Your task to perform on an android device: uninstall "Reddit" Image 0: 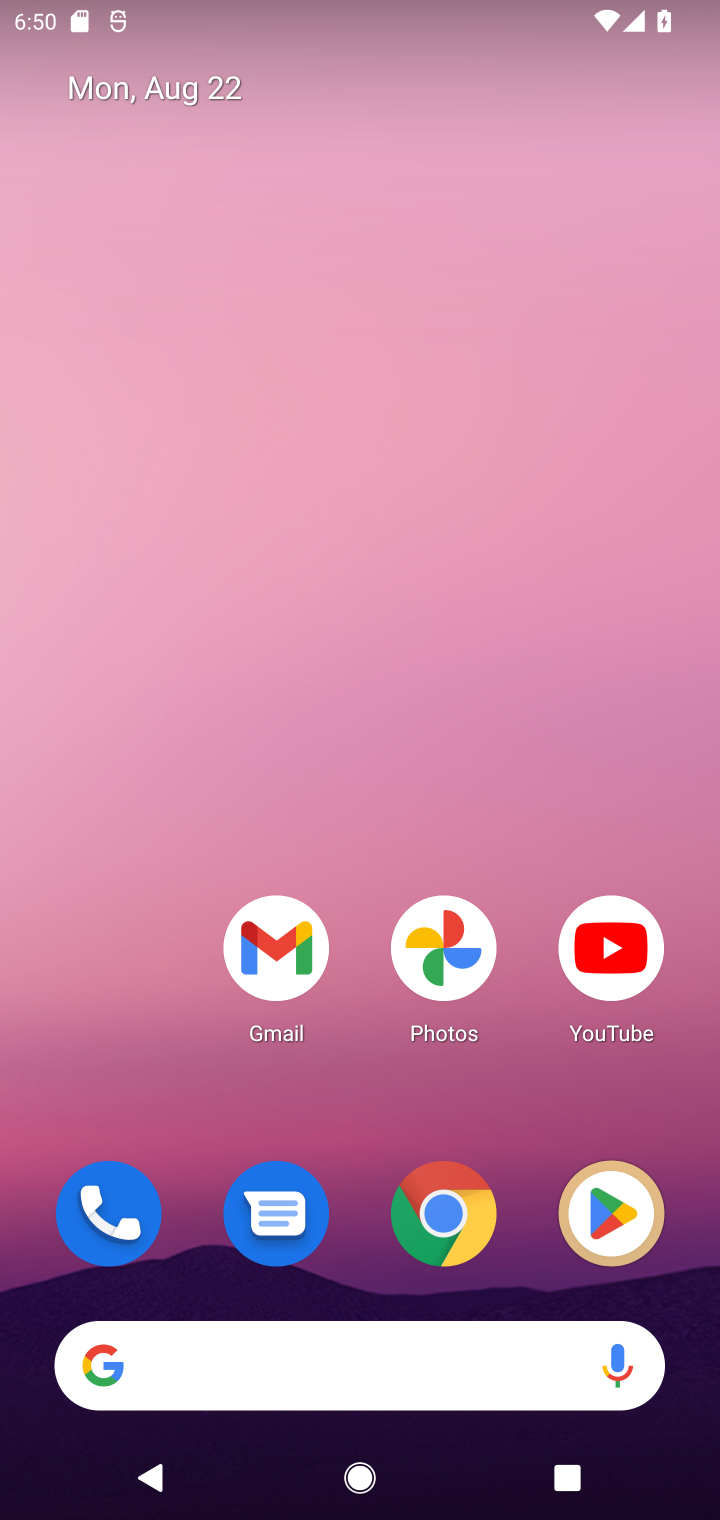
Step 0: press home button
Your task to perform on an android device: uninstall "Reddit" Image 1: 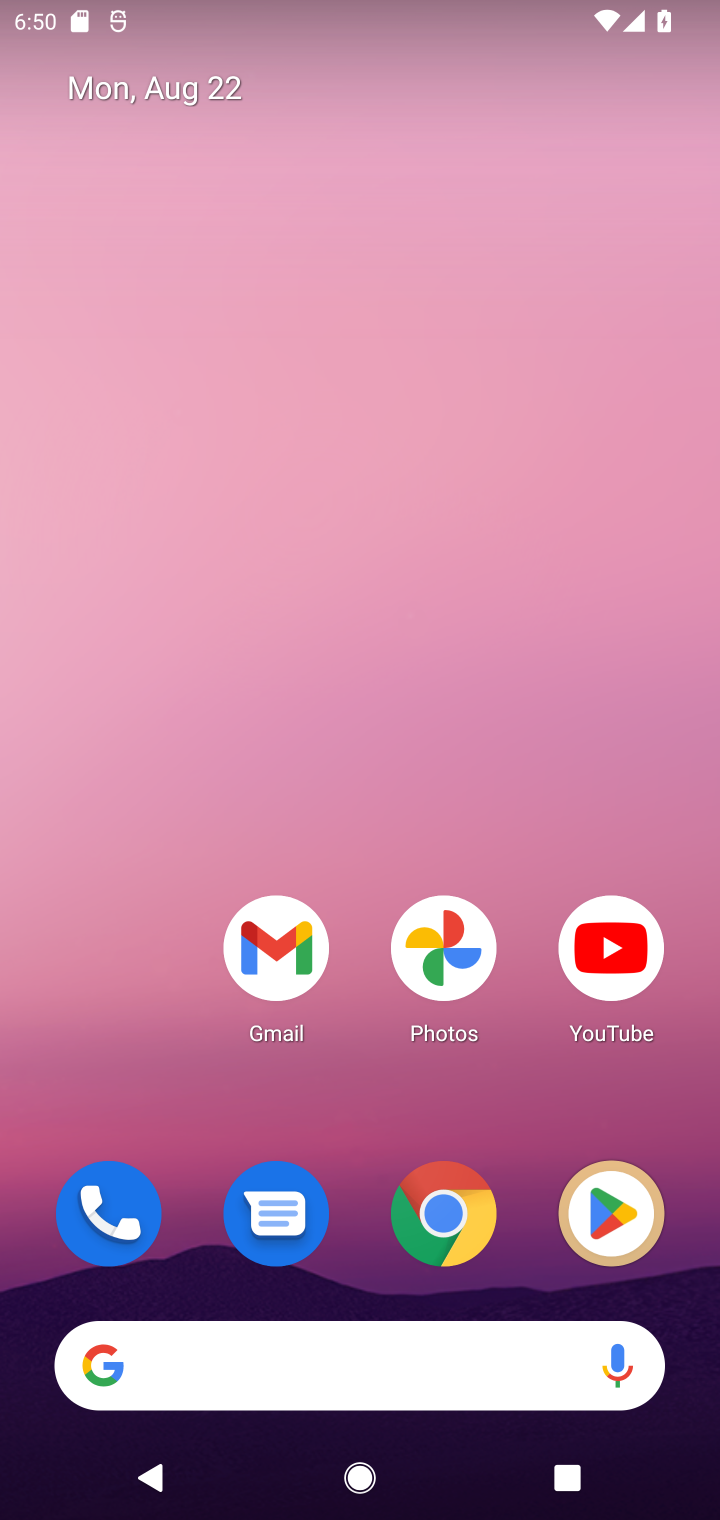
Step 1: click (624, 1195)
Your task to perform on an android device: uninstall "Reddit" Image 2: 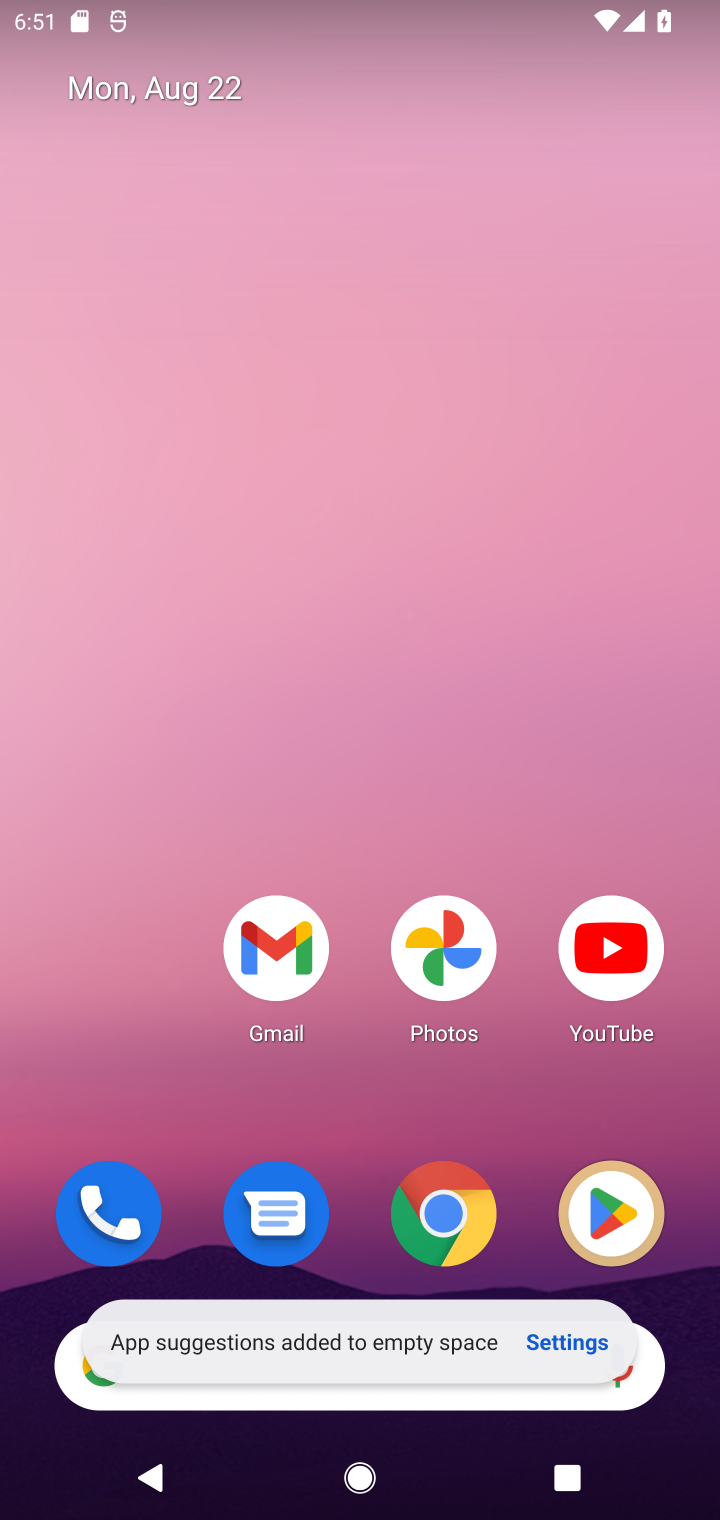
Step 2: click (617, 1200)
Your task to perform on an android device: uninstall "Reddit" Image 3: 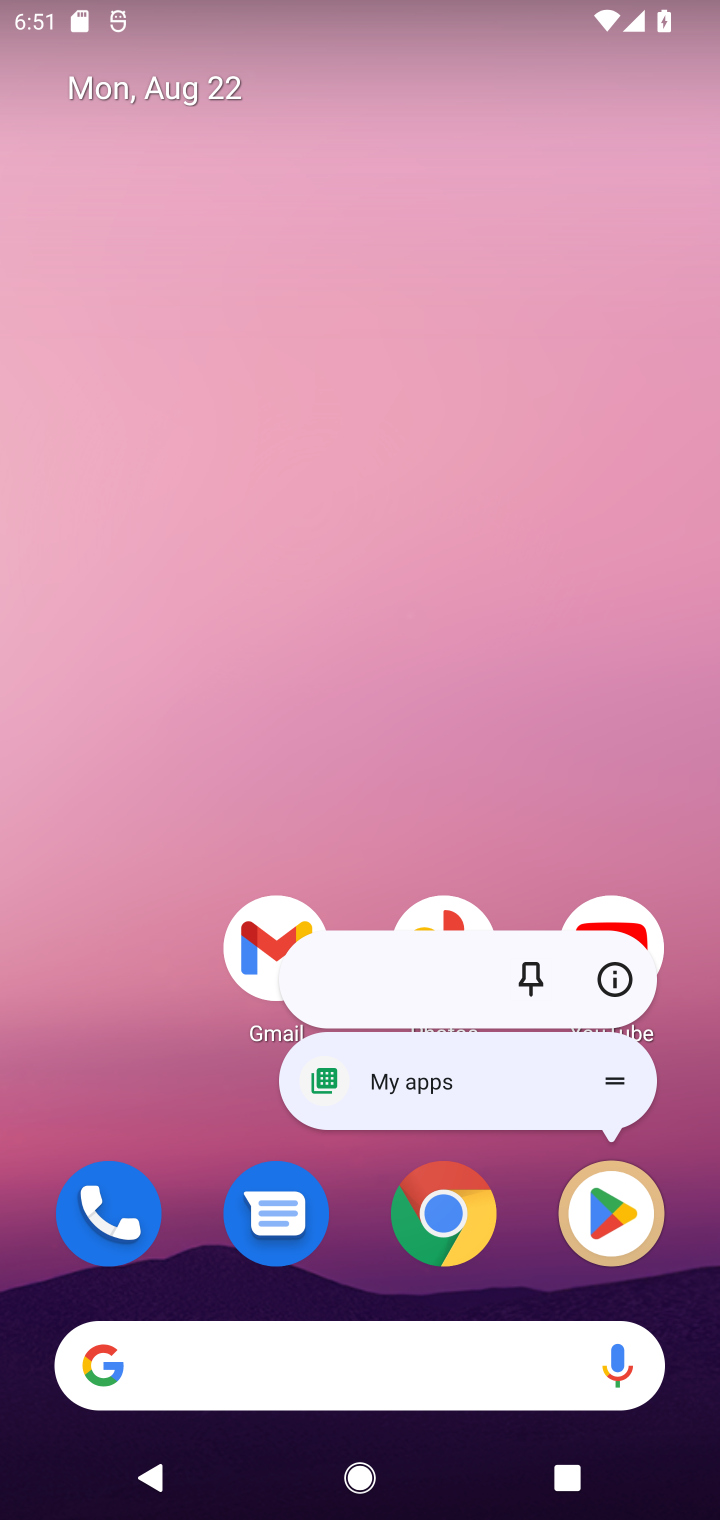
Step 3: click (617, 1200)
Your task to perform on an android device: uninstall "Reddit" Image 4: 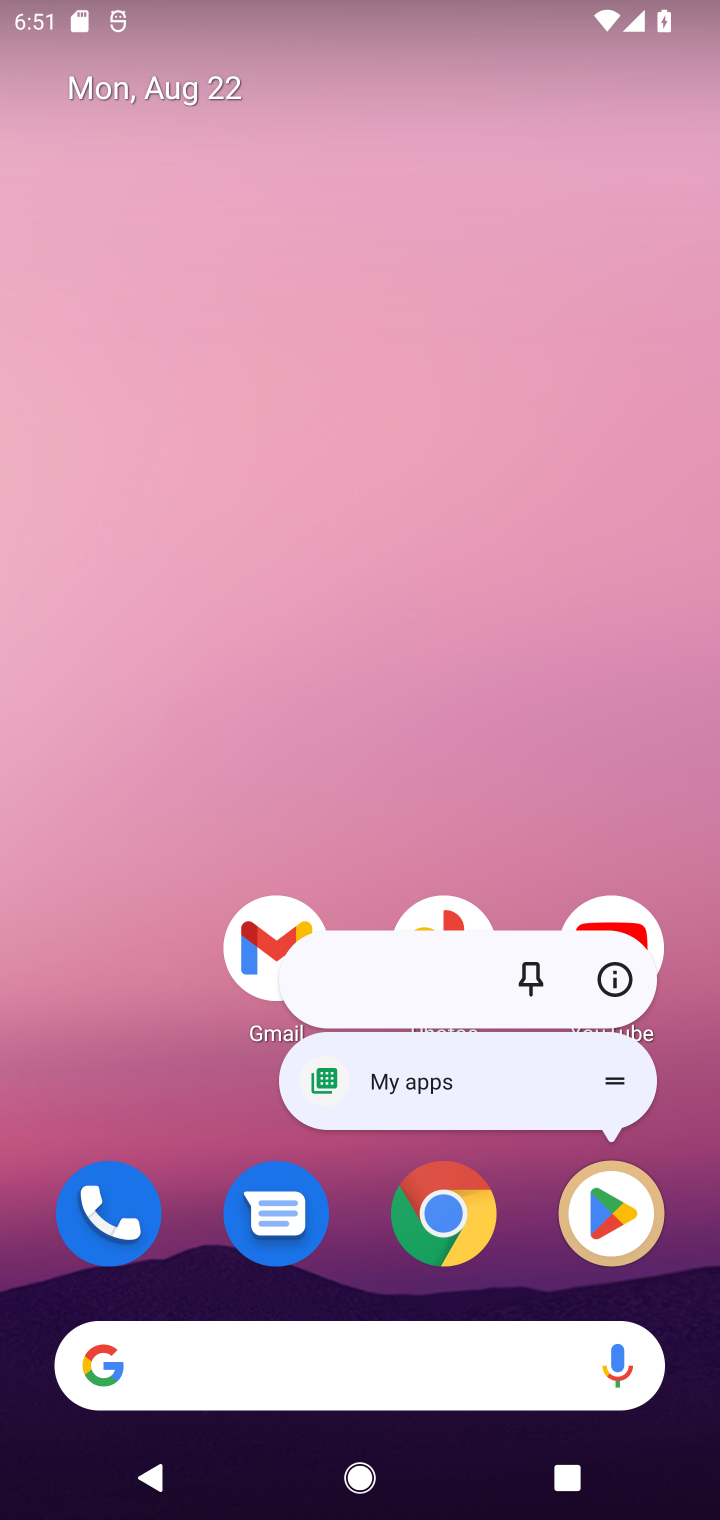
Step 4: click (612, 1197)
Your task to perform on an android device: uninstall "Reddit" Image 5: 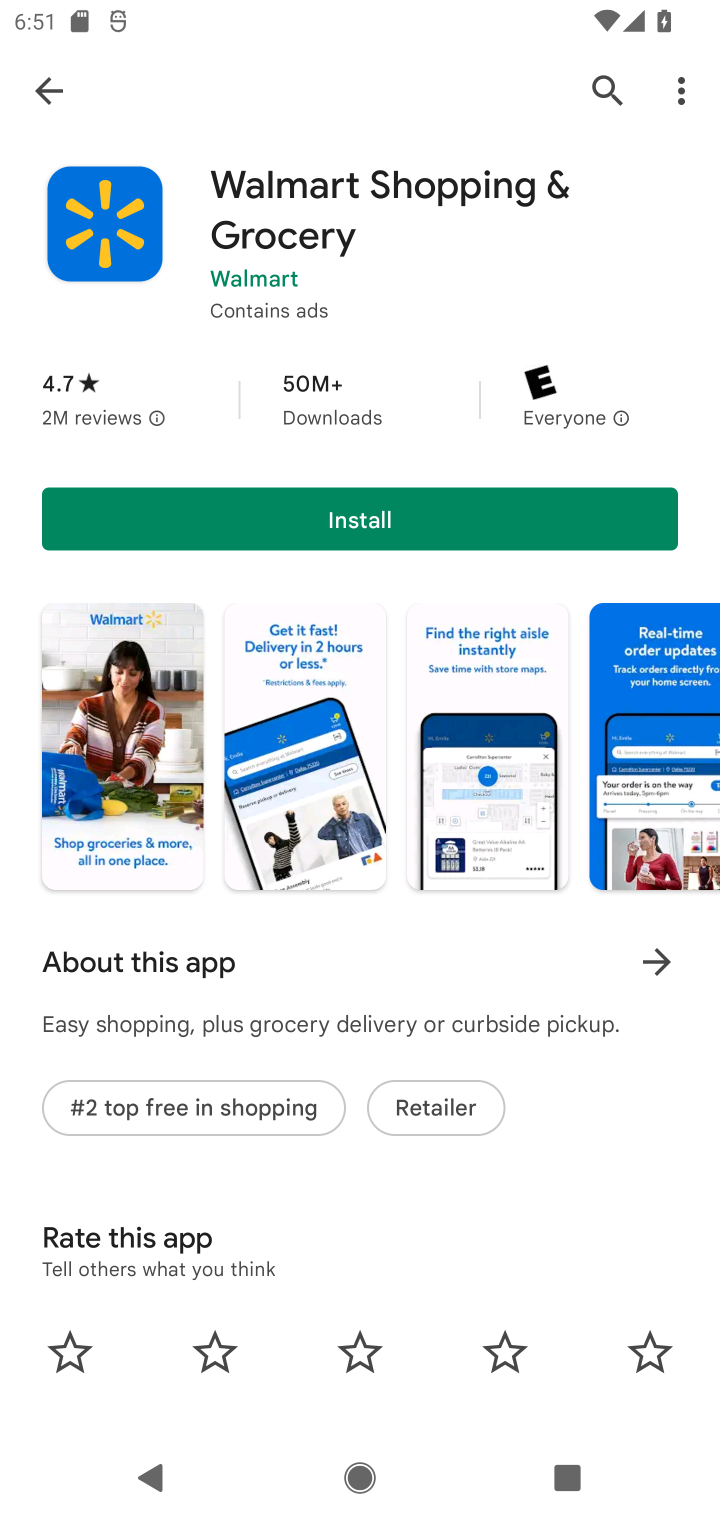
Step 5: click (615, 86)
Your task to perform on an android device: uninstall "Reddit" Image 6: 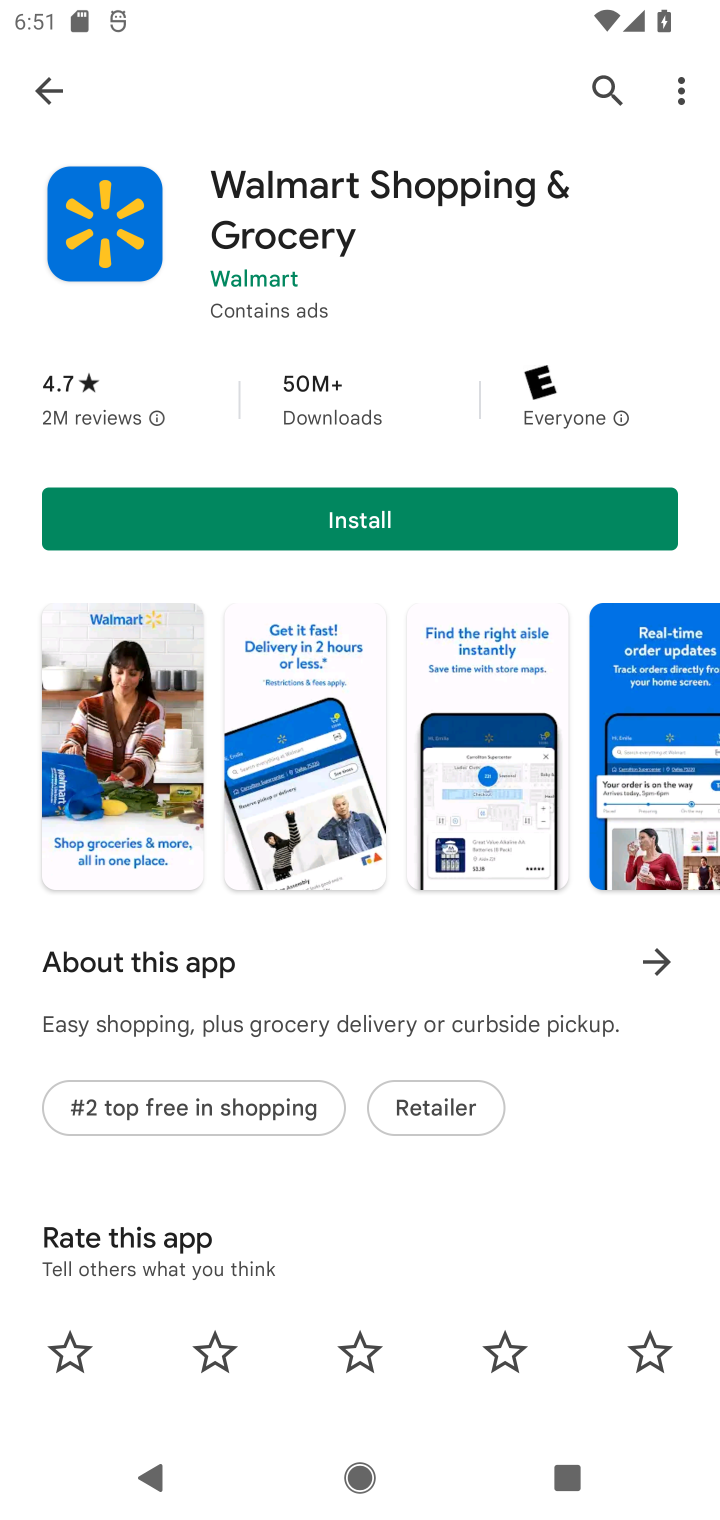
Step 6: click (603, 97)
Your task to perform on an android device: uninstall "Reddit" Image 7: 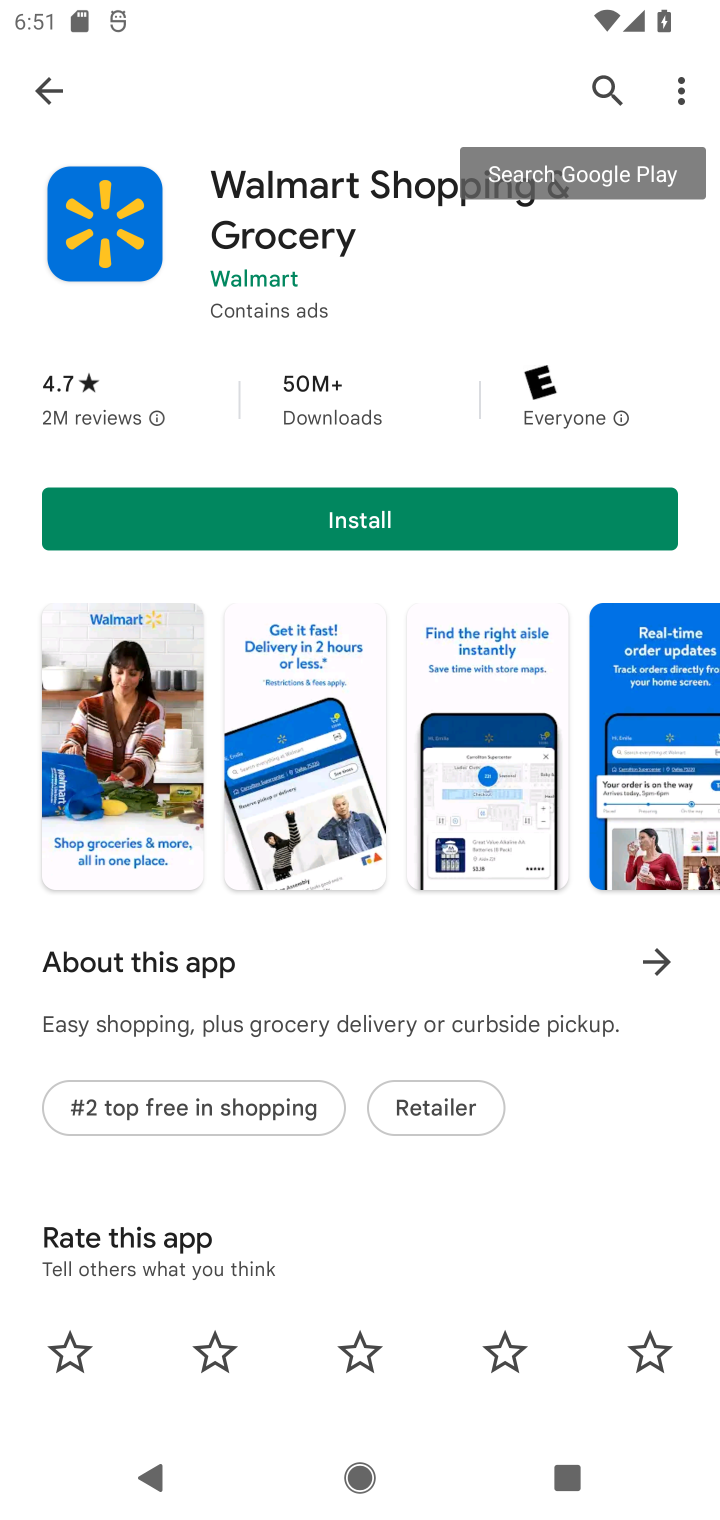
Step 7: click (603, 97)
Your task to perform on an android device: uninstall "Reddit" Image 8: 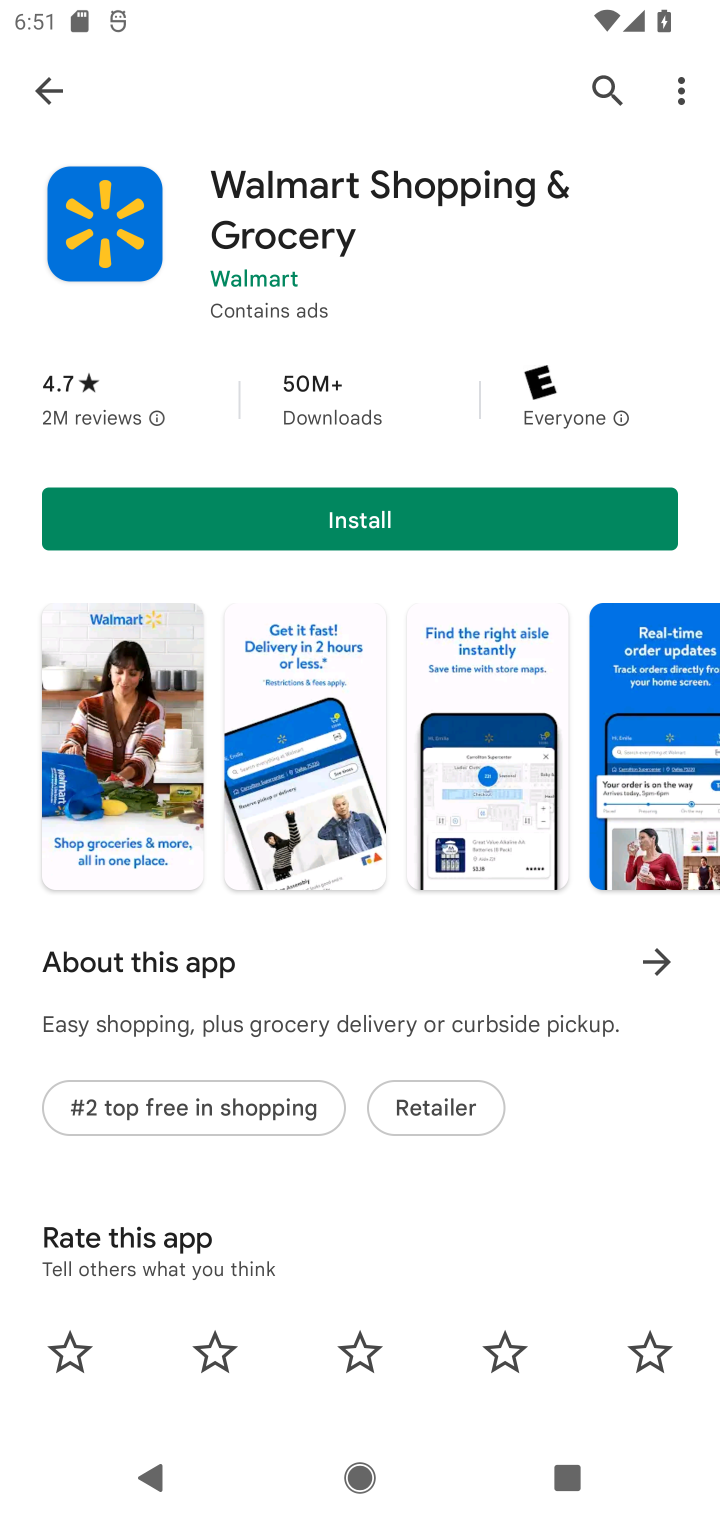
Step 8: click (599, 75)
Your task to perform on an android device: uninstall "Reddit" Image 9: 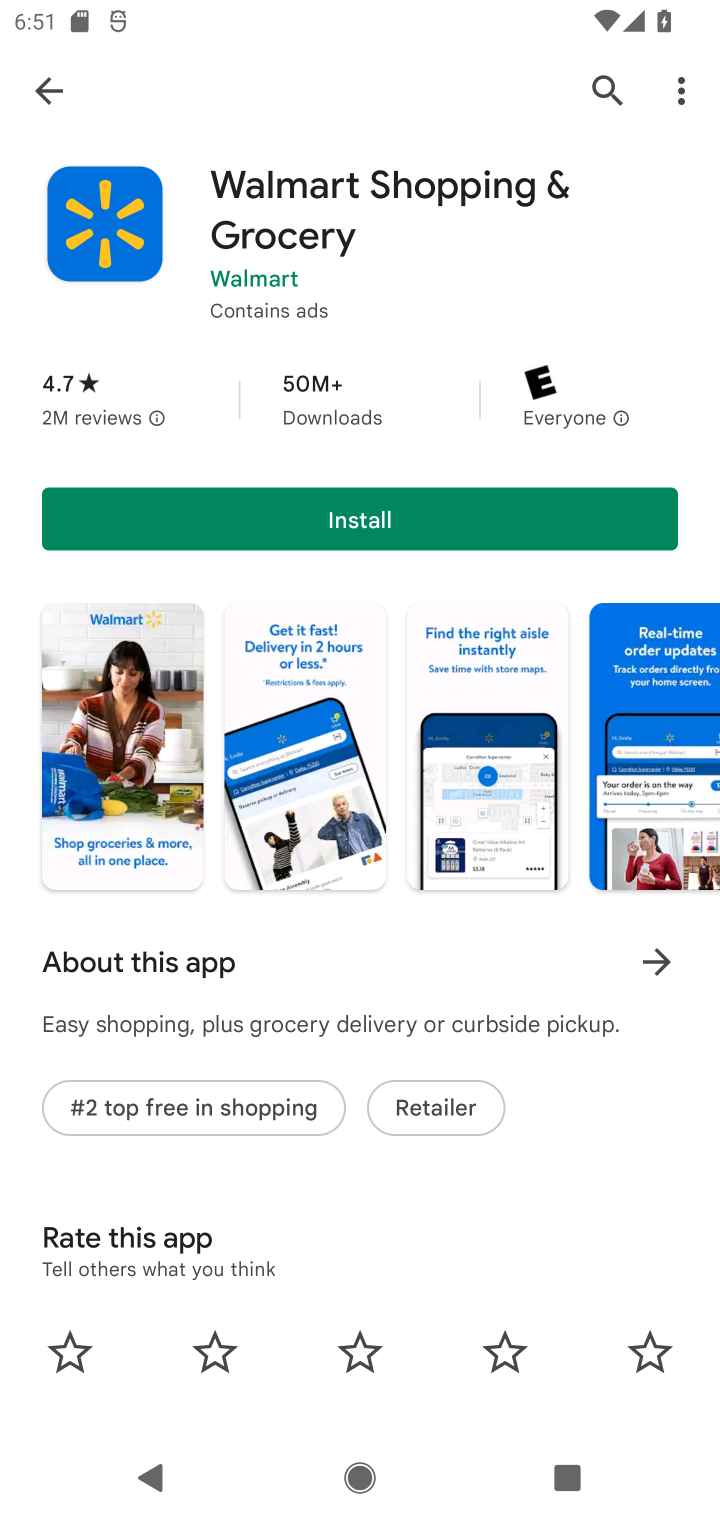
Step 9: click (30, 89)
Your task to perform on an android device: uninstall "Reddit" Image 10: 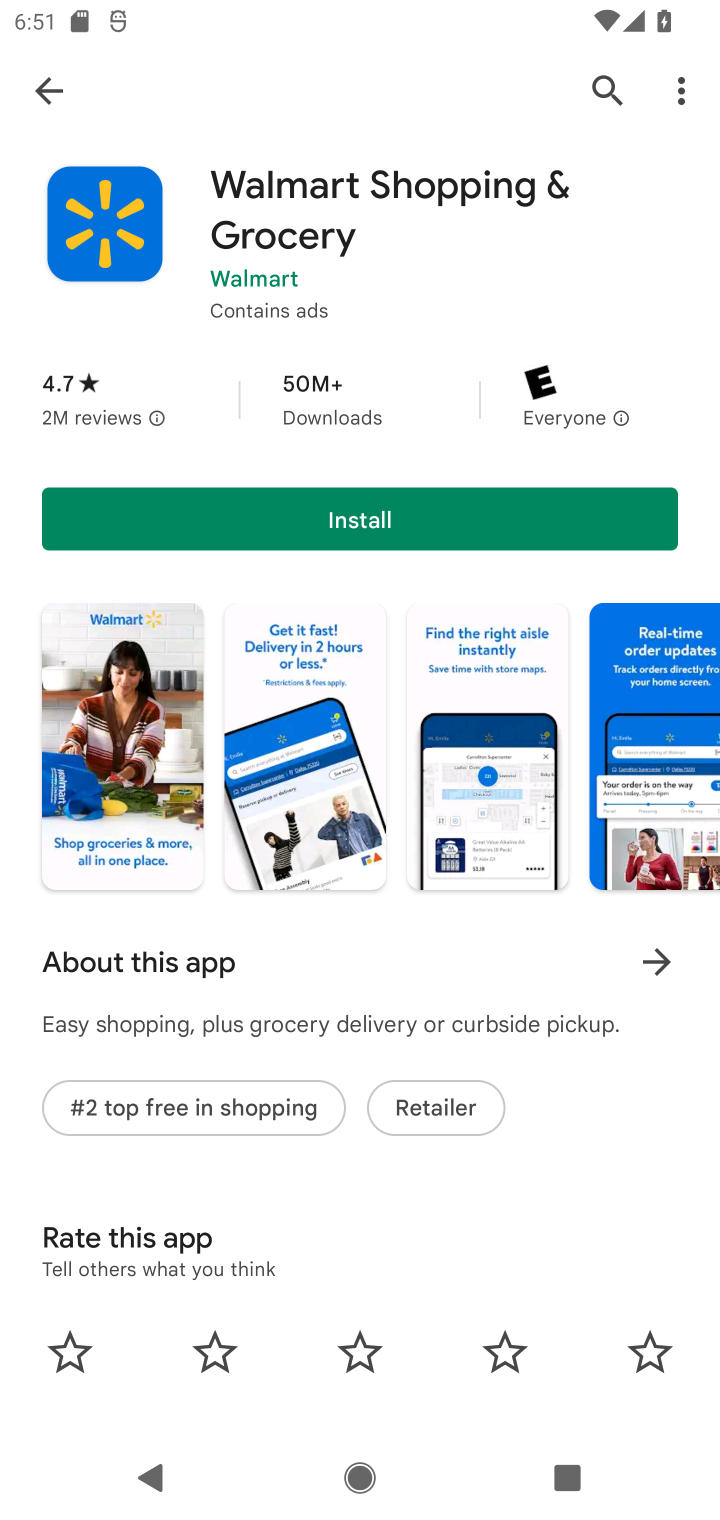
Step 10: press back button
Your task to perform on an android device: uninstall "Reddit" Image 11: 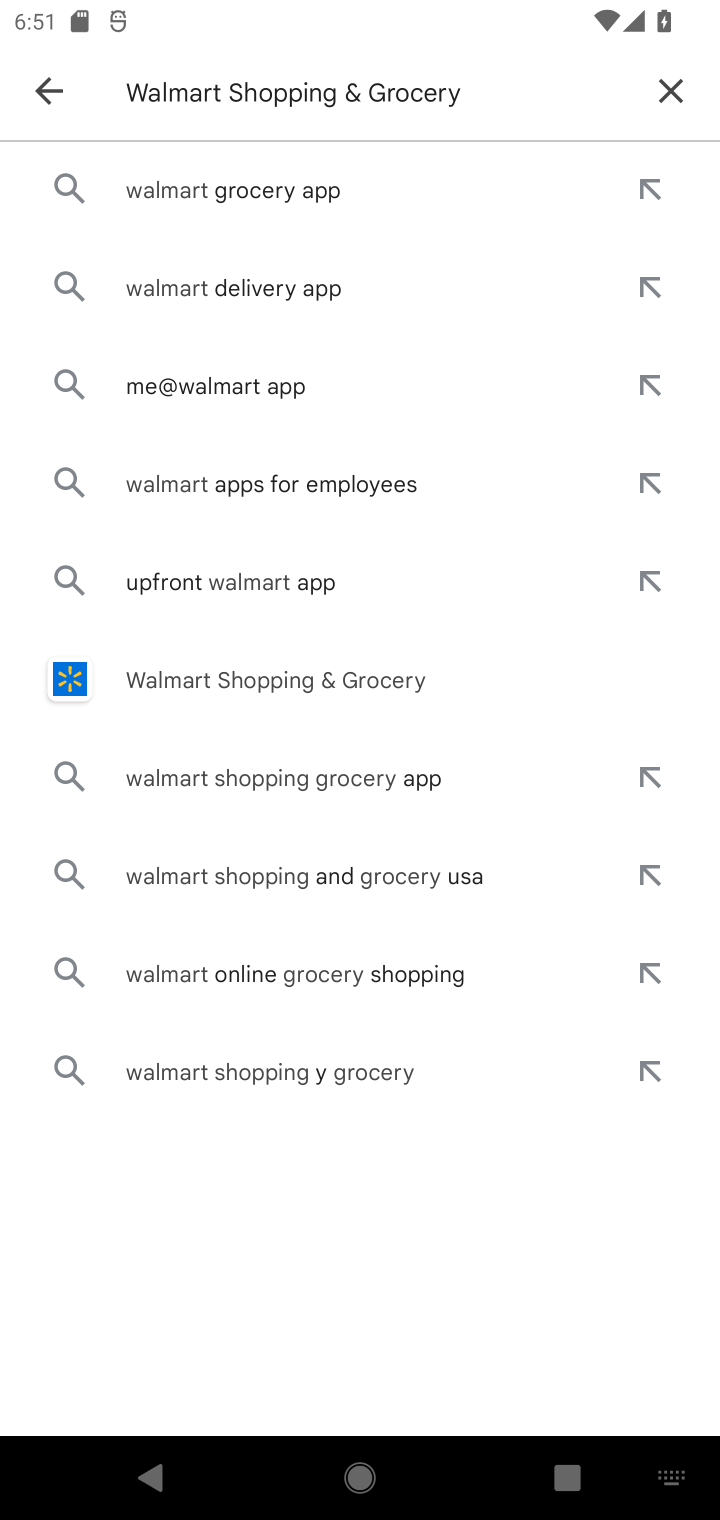
Step 11: click (671, 102)
Your task to perform on an android device: uninstall "Reddit" Image 12: 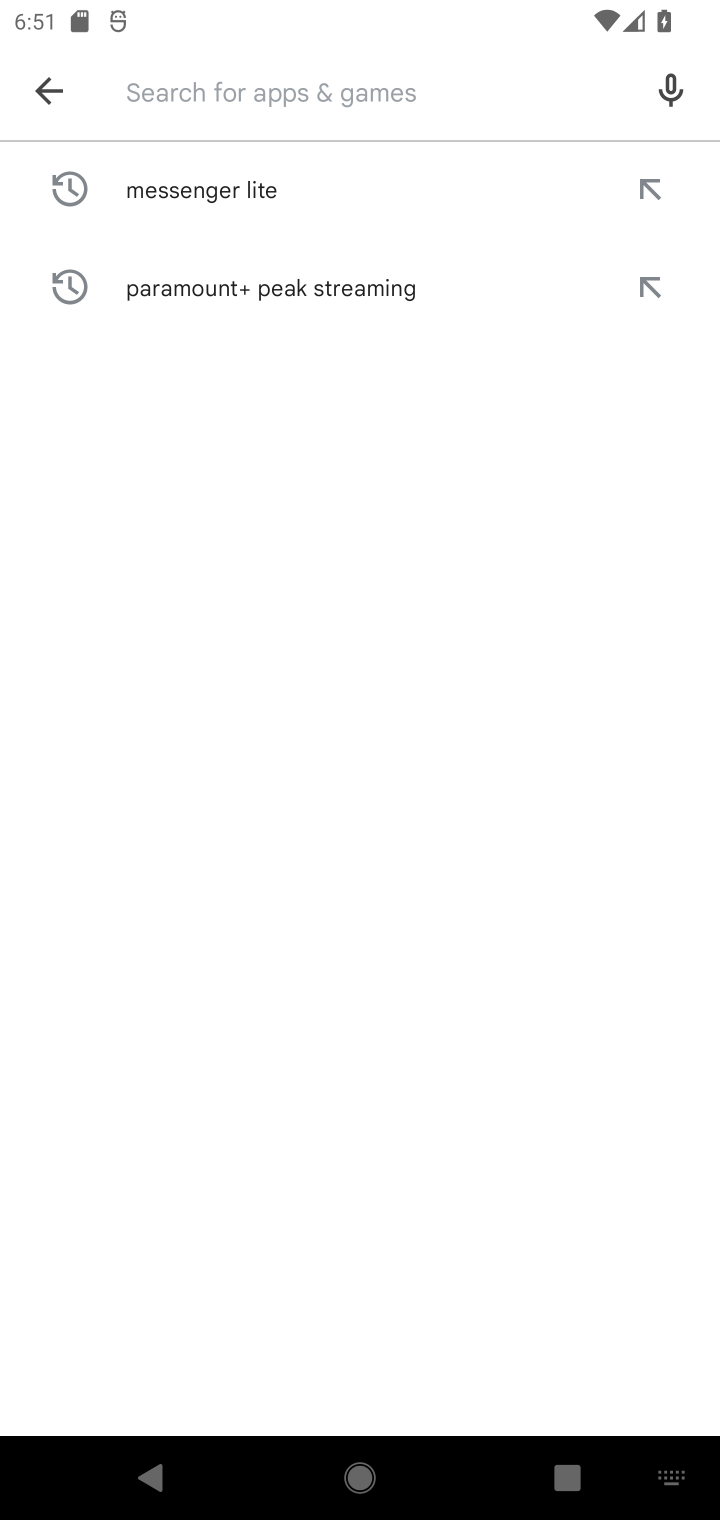
Step 12: type "Reddit"
Your task to perform on an android device: uninstall "Reddit" Image 13: 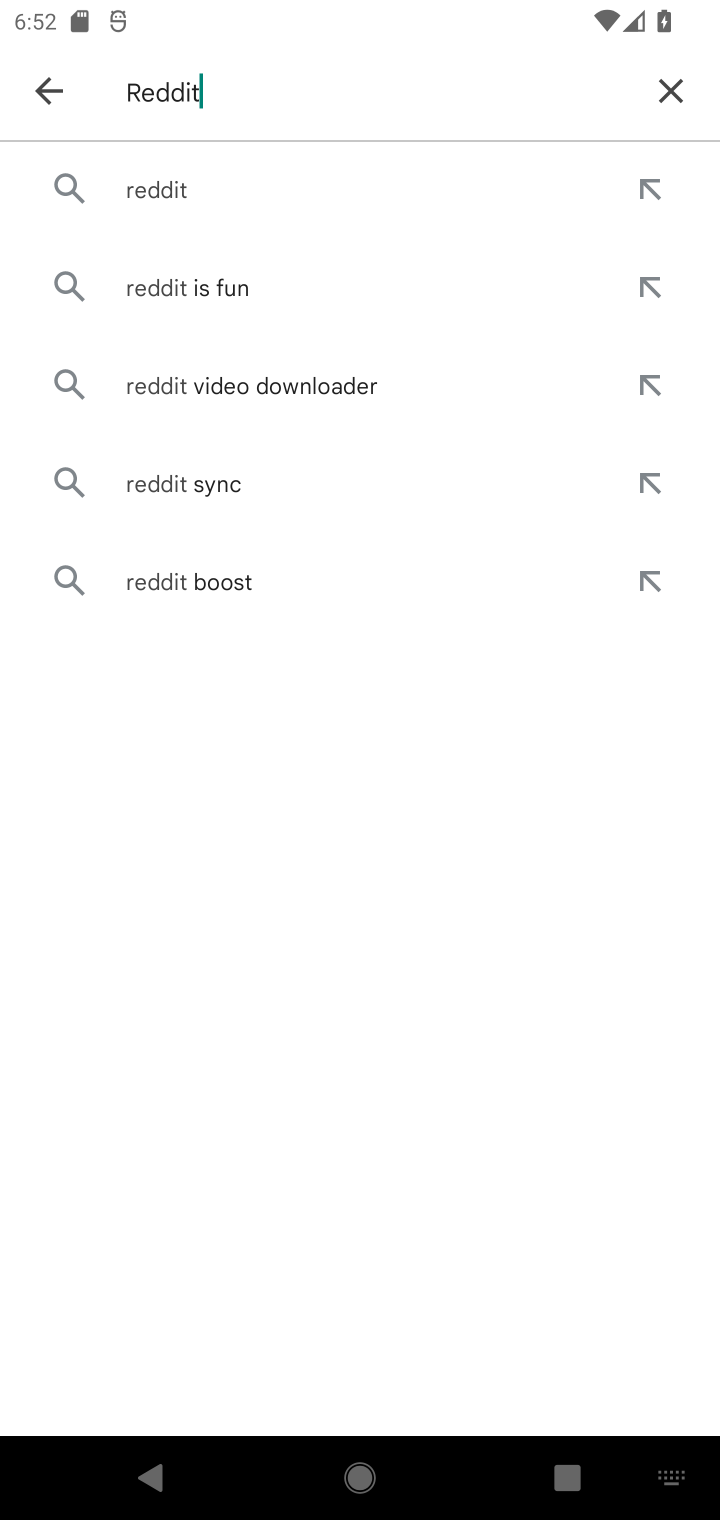
Step 13: click (99, 192)
Your task to perform on an android device: uninstall "Reddit" Image 14: 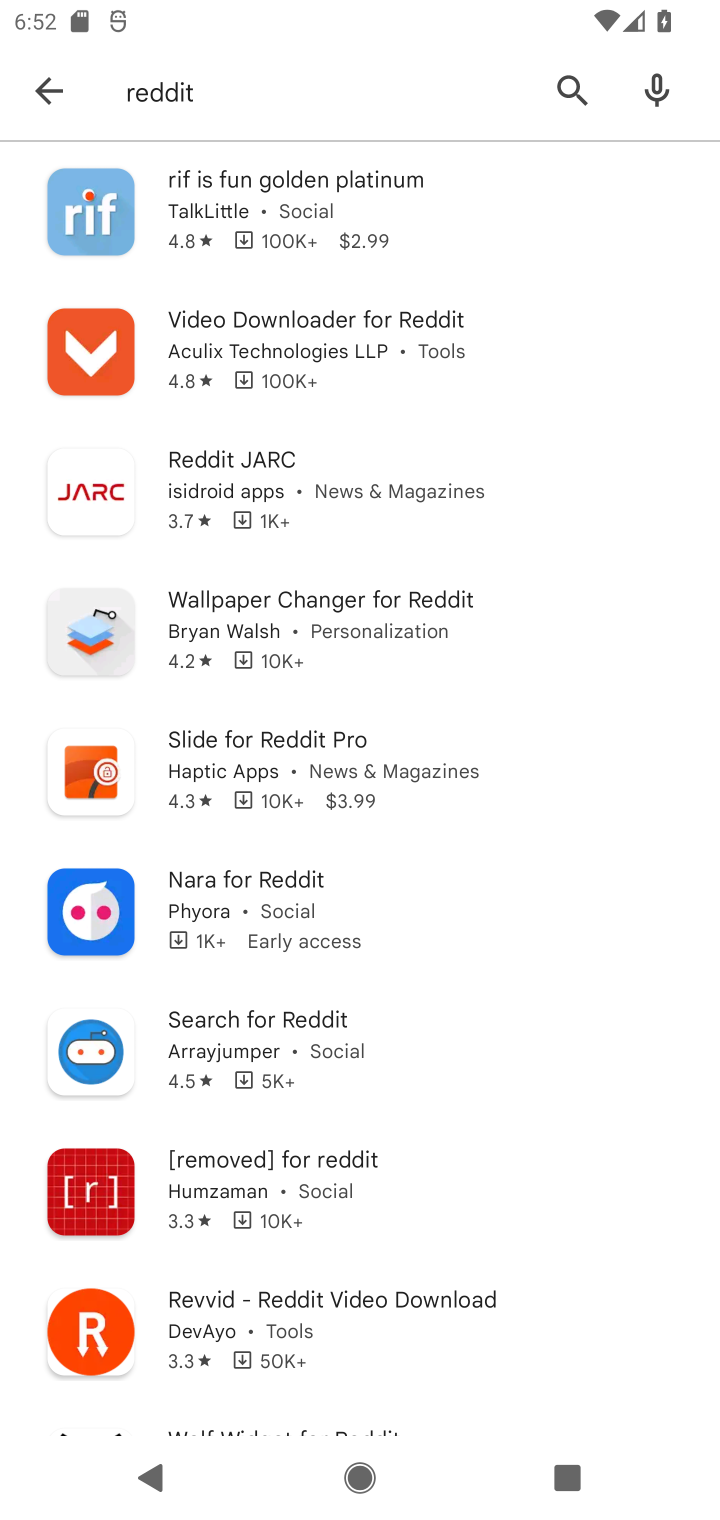
Step 14: task complete